Your task to perform on an android device: find photos in the google photos app Image 0: 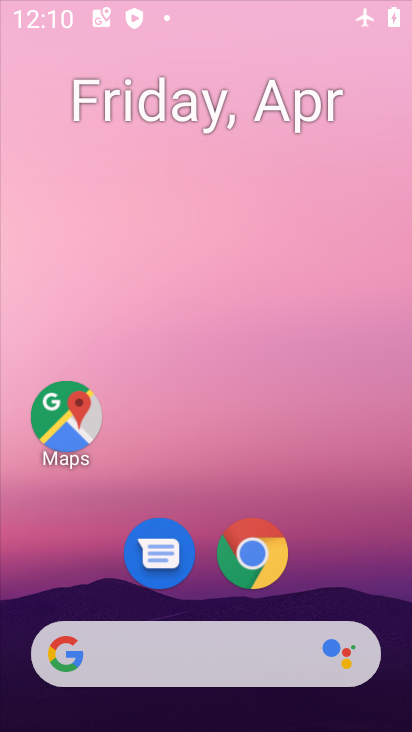
Step 0: drag from (288, 395) to (200, 115)
Your task to perform on an android device: find photos in the google photos app Image 1: 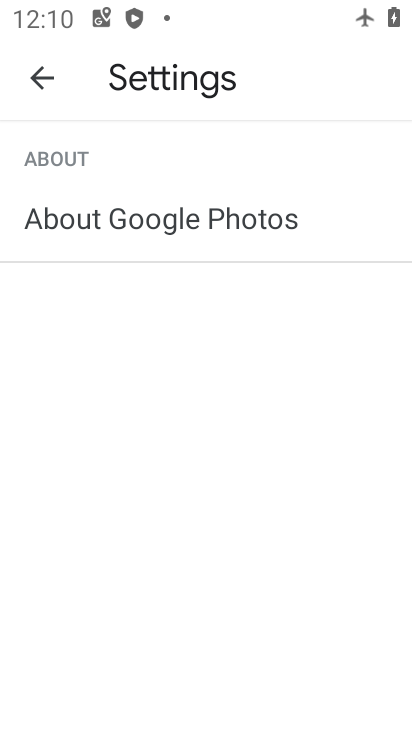
Step 1: press home button
Your task to perform on an android device: find photos in the google photos app Image 2: 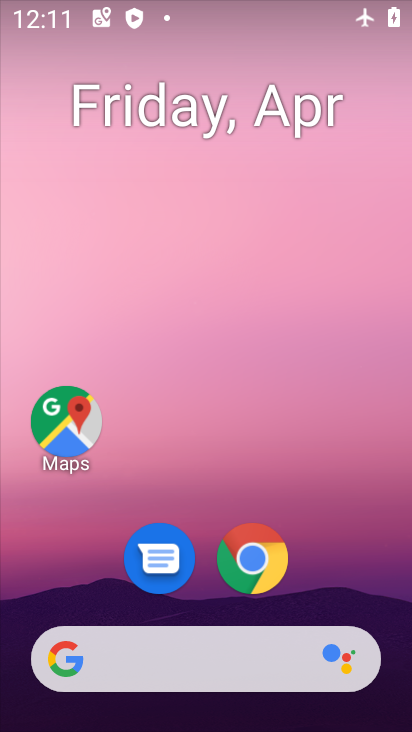
Step 2: drag from (346, 598) to (168, 93)
Your task to perform on an android device: find photos in the google photos app Image 3: 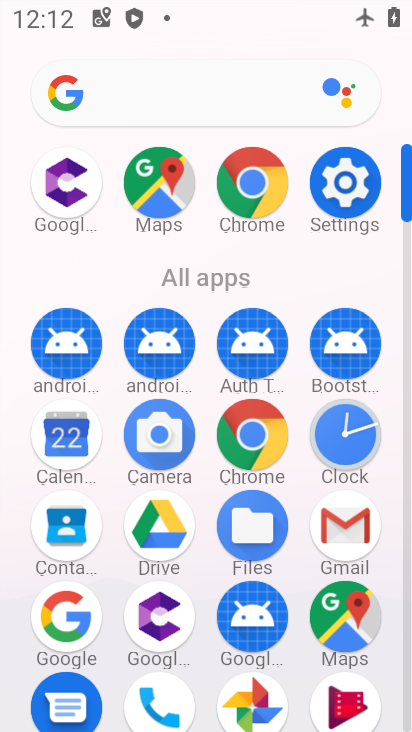
Step 3: click (255, 699)
Your task to perform on an android device: find photos in the google photos app Image 4: 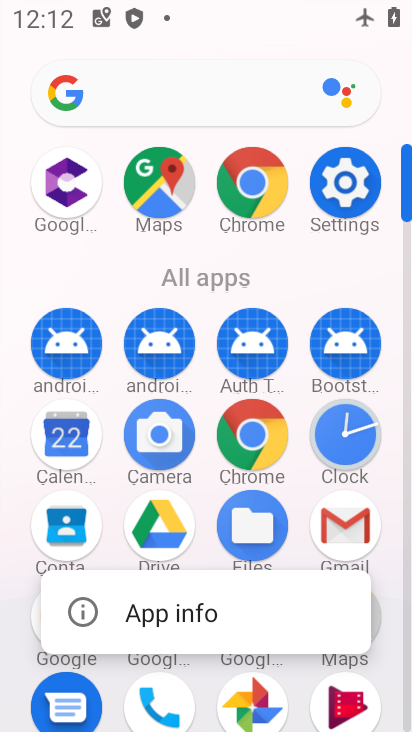
Step 4: click (255, 699)
Your task to perform on an android device: find photos in the google photos app Image 5: 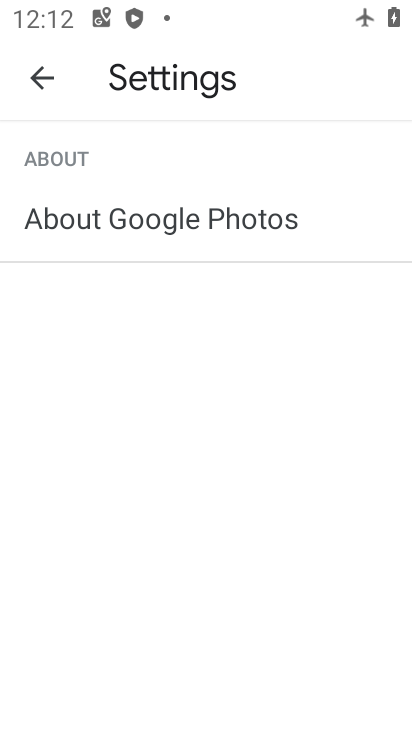
Step 5: click (41, 65)
Your task to perform on an android device: find photos in the google photos app Image 6: 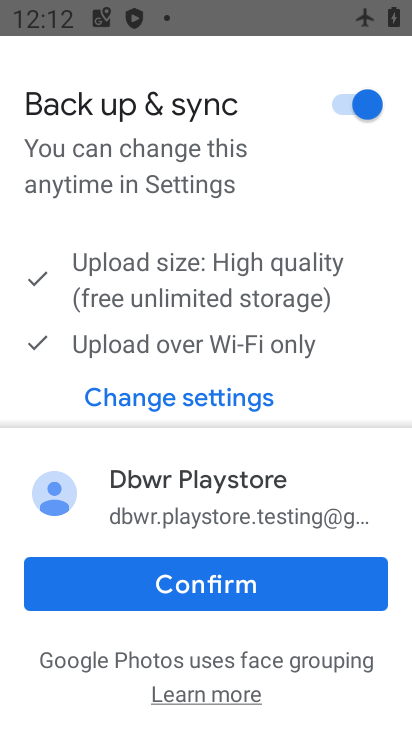
Step 6: click (166, 575)
Your task to perform on an android device: find photos in the google photos app Image 7: 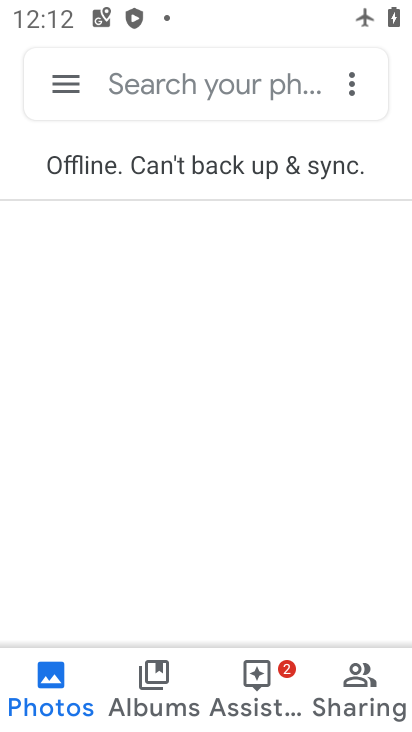
Step 7: task complete